Your task to perform on an android device: Search for Italian restaurants on Maps Image 0: 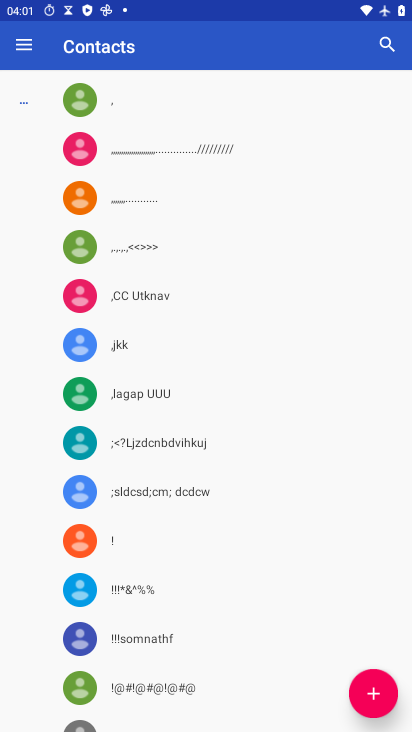
Step 0: press back button
Your task to perform on an android device: Search for Italian restaurants on Maps Image 1: 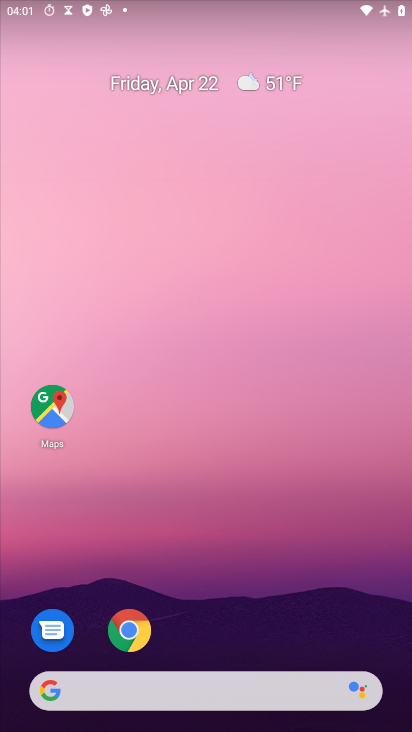
Step 1: drag from (195, 492) to (169, 116)
Your task to perform on an android device: Search for Italian restaurants on Maps Image 2: 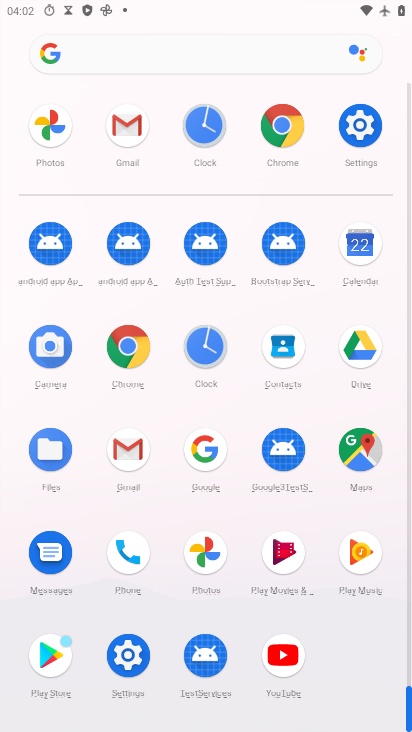
Step 2: click (346, 446)
Your task to perform on an android device: Search for Italian restaurants on Maps Image 3: 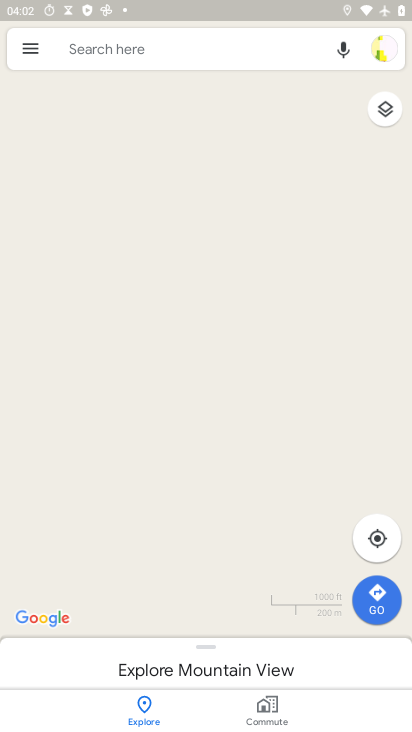
Step 3: click (160, 45)
Your task to perform on an android device: Search for Italian restaurants on Maps Image 4: 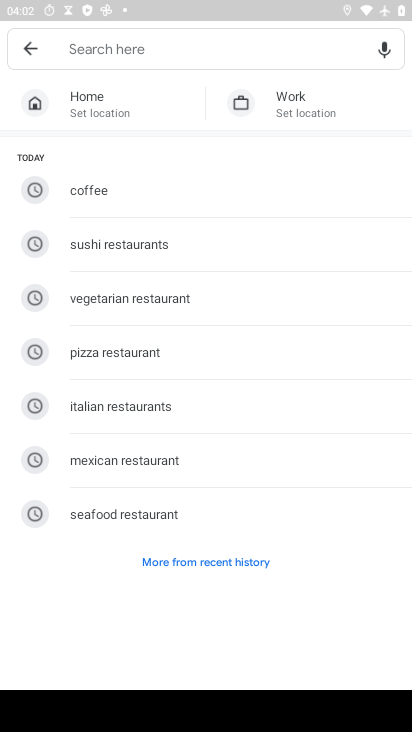
Step 4: type " Italian restaurants"
Your task to perform on an android device: Search for Italian restaurants on Maps Image 5: 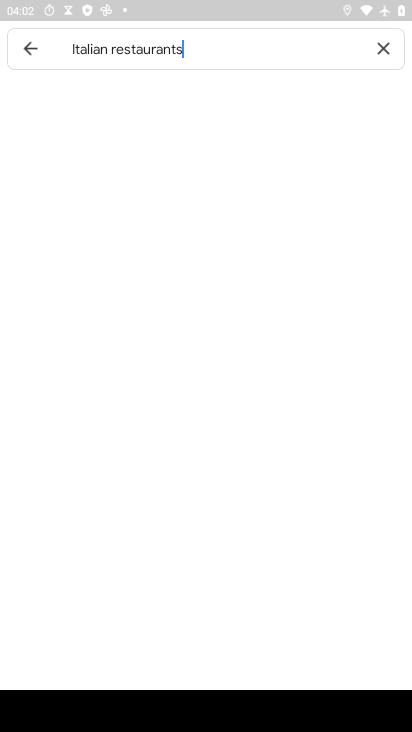
Step 5: type ""
Your task to perform on an android device: Search for Italian restaurants on Maps Image 6: 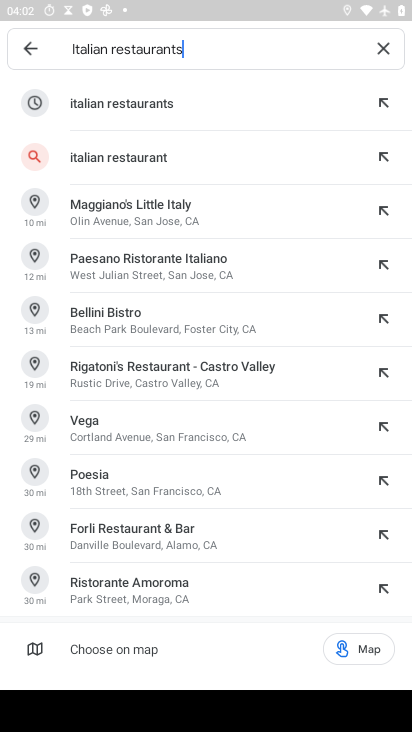
Step 6: click (172, 107)
Your task to perform on an android device: Search for Italian restaurants on Maps Image 7: 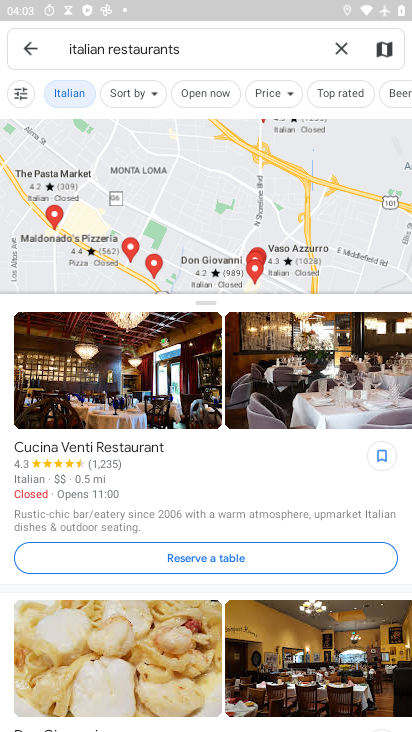
Step 7: task complete